Your task to perform on an android device: delete a single message in the gmail app Image 0: 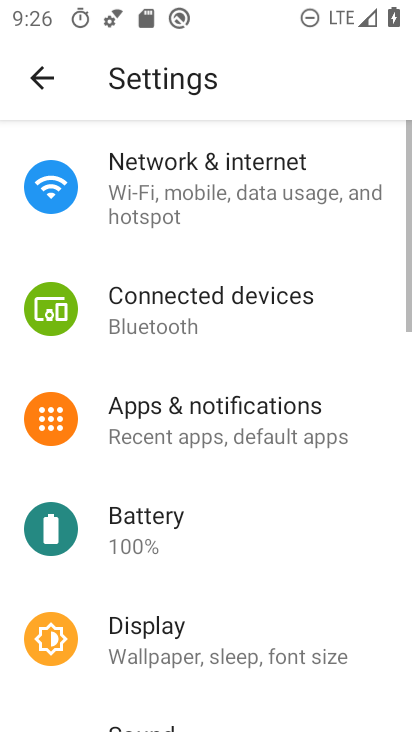
Step 0: press home button
Your task to perform on an android device: delete a single message in the gmail app Image 1: 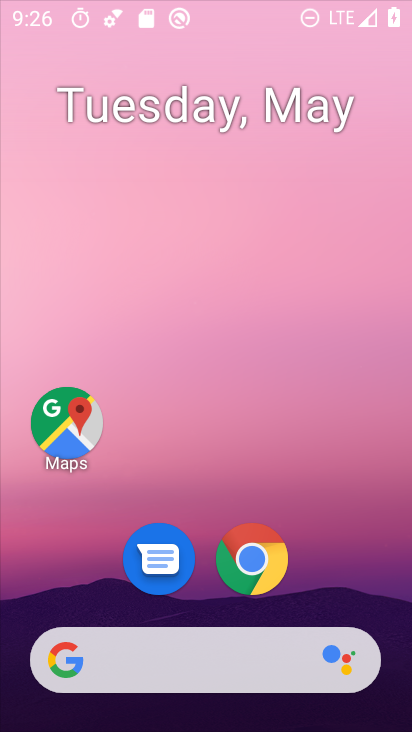
Step 1: drag from (390, 678) to (299, 23)
Your task to perform on an android device: delete a single message in the gmail app Image 2: 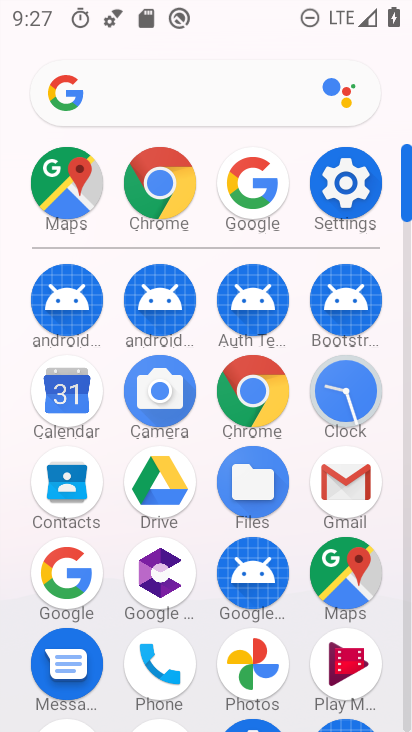
Step 2: click (360, 493)
Your task to perform on an android device: delete a single message in the gmail app Image 3: 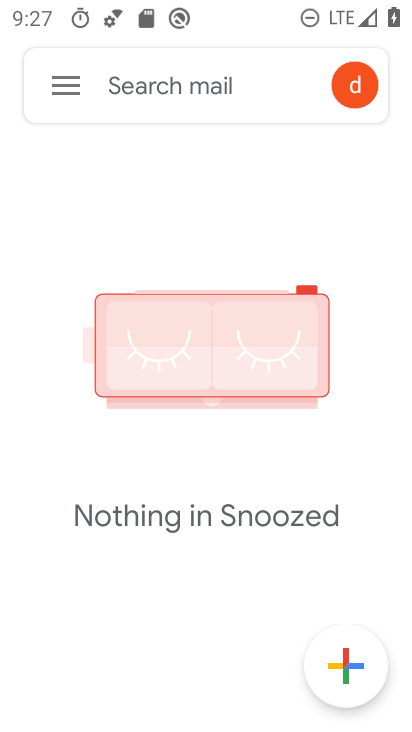
Step 3: click (63, 98)
Your task to perform on an android device: delete a single message in the gmail app Image 4: 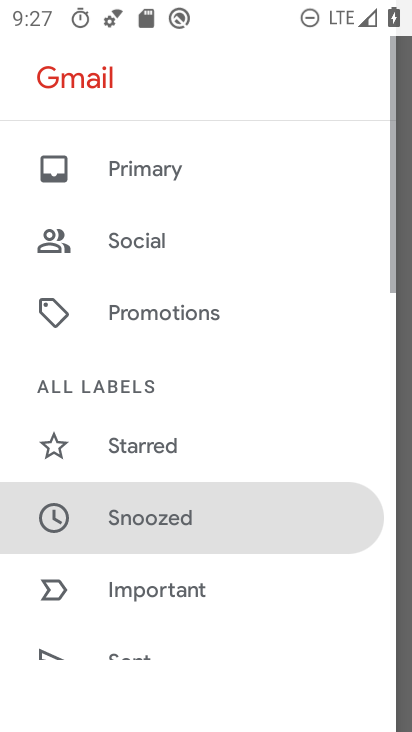
Step 4: drag from (186, 150) to (222, 642)
Your task to perform on an android device: delete a single message in the gmail app Image 5: 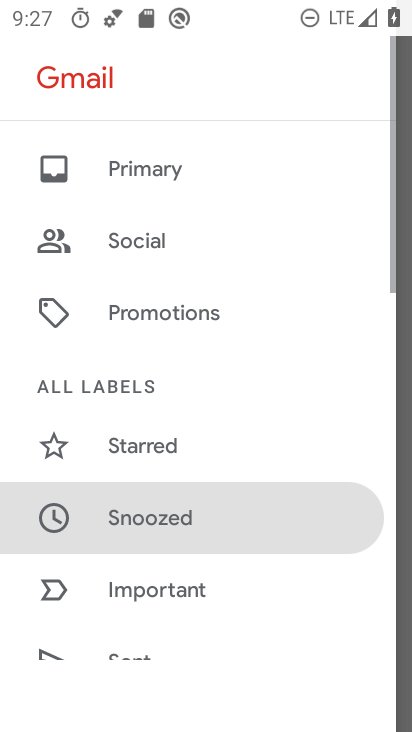
Step 5: click (193, 180)
Your task to perform on an android device: delete a single message in the gmail app Image 6: 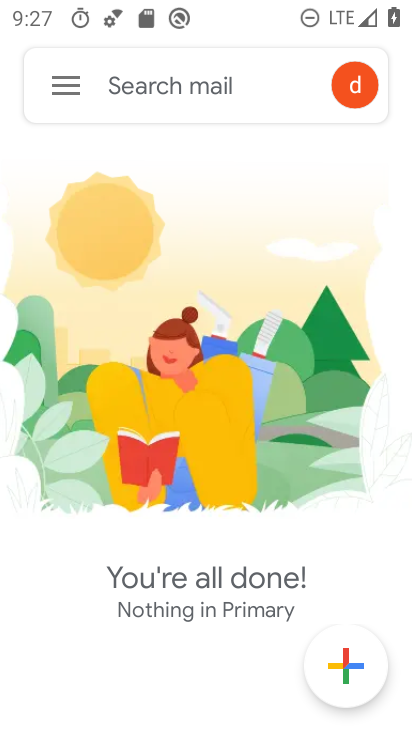
Step 6: task complete